Your task to perform on an android device: Add acer nitro to the cart on bestbuy.com, then select checkout. Image 0: 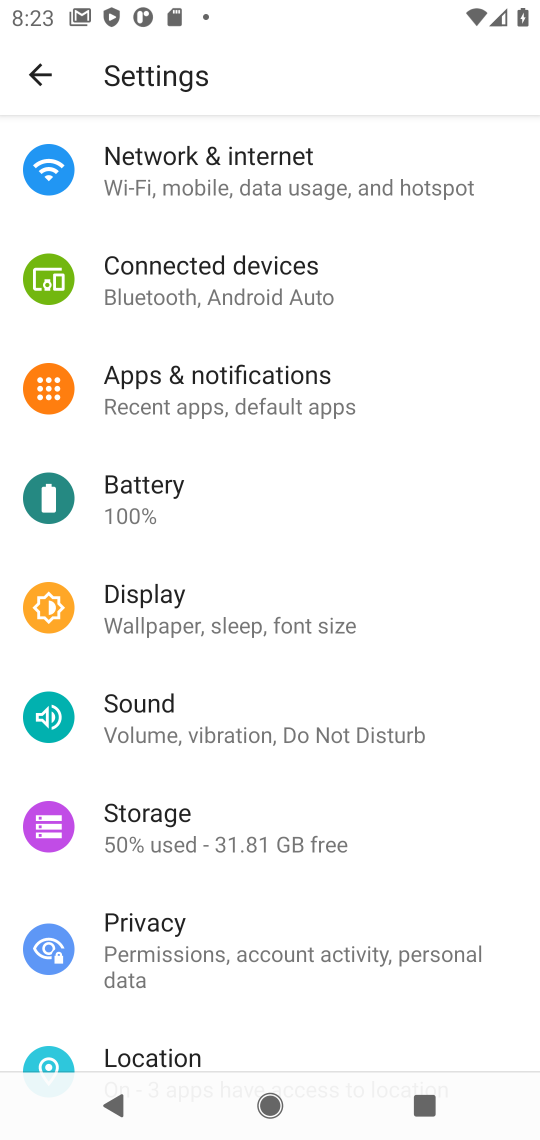
Step 0: press home button
Your task to perform on an android device: Add acer nitro to the cart on bestbuy.com, then select checkout. Image 1: 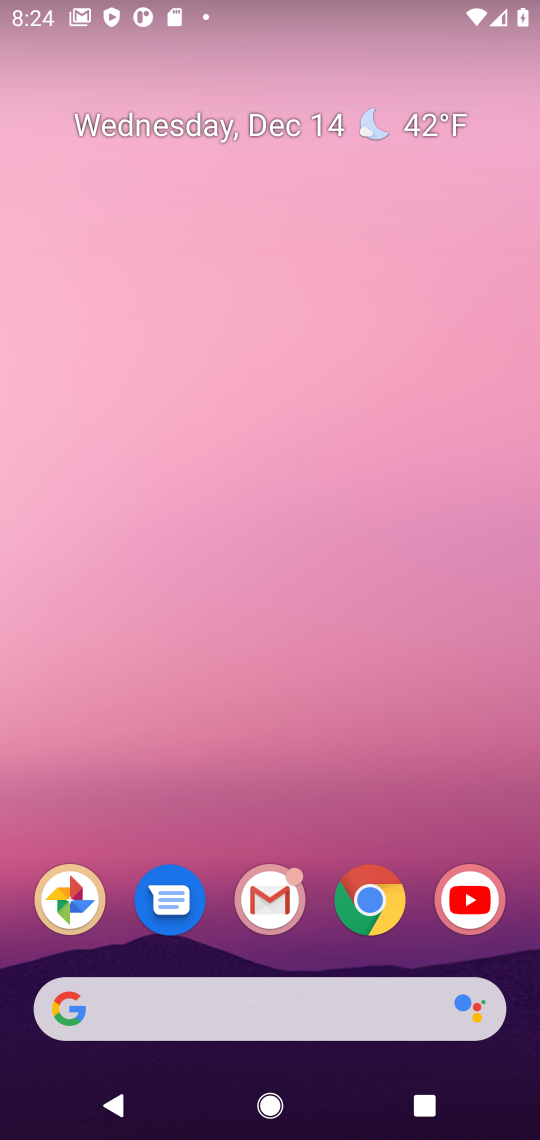
Step 1: click (364, 895)
Your task to perform on an android device: Add acer nitro to the cart on bestbuy.com, then select checkout. Image 2: 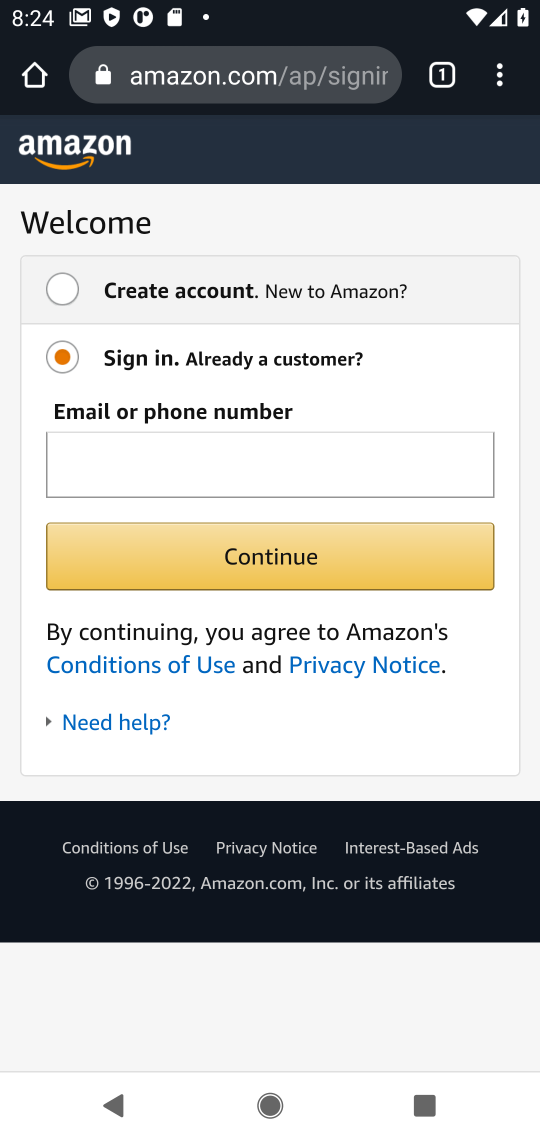
Step 2: click (242, 89)
Your task to perform on an android device: Add acer nitro to the cart on bestbuy.com, then select checkout. Image 3: 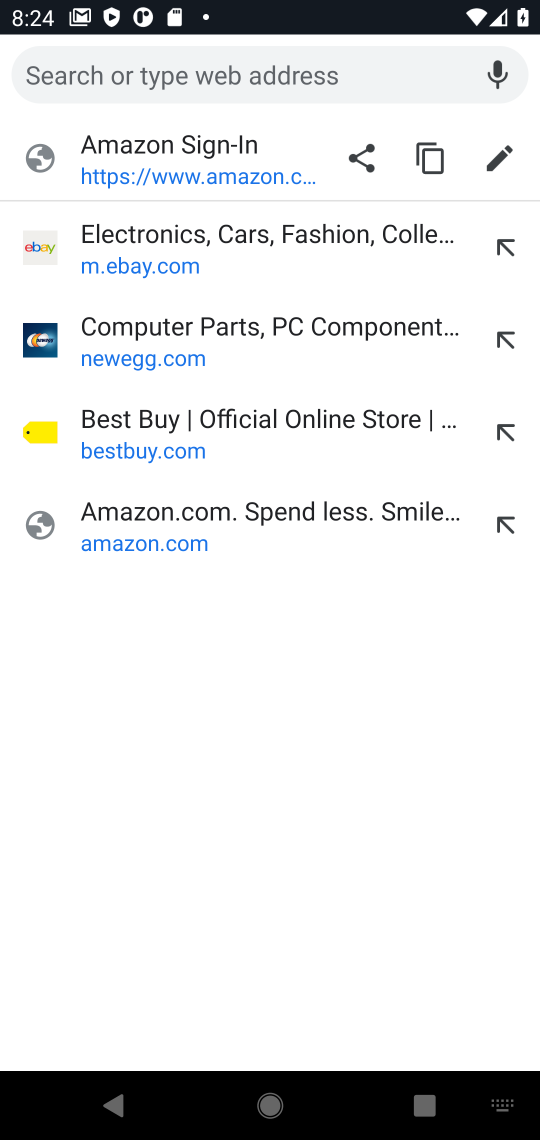
Step 3: click (125, 441)
Your task to perform on an android device: Add acer nitro to the cart on bestbuy.com, then select checkout. Image 4: 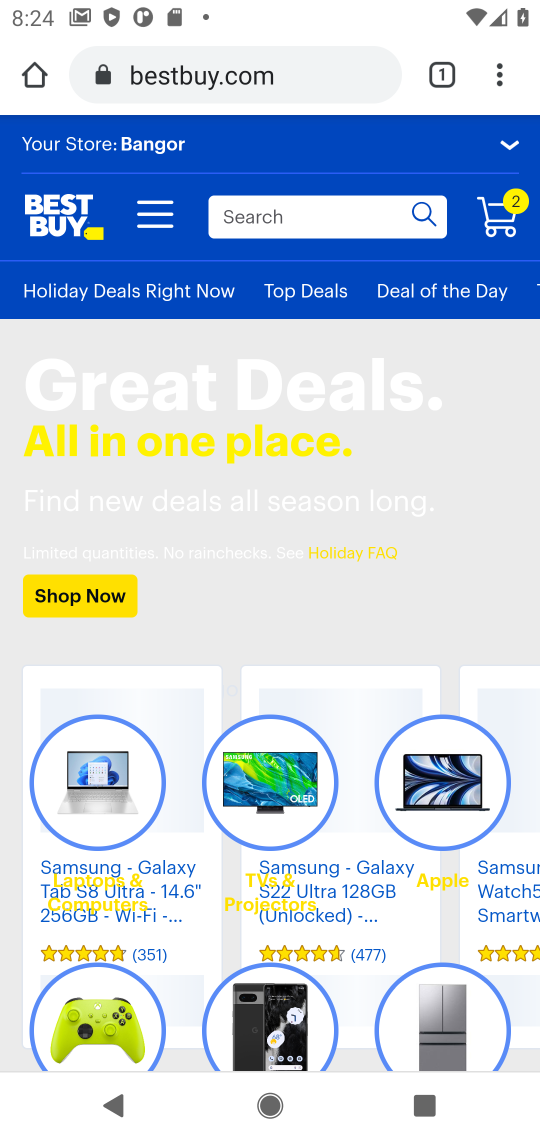
Step 4: click (247, 219)
Your task to perform on an android device: Add acer nitro to the cart on bestbuy.com, then select checkout. Image 5: 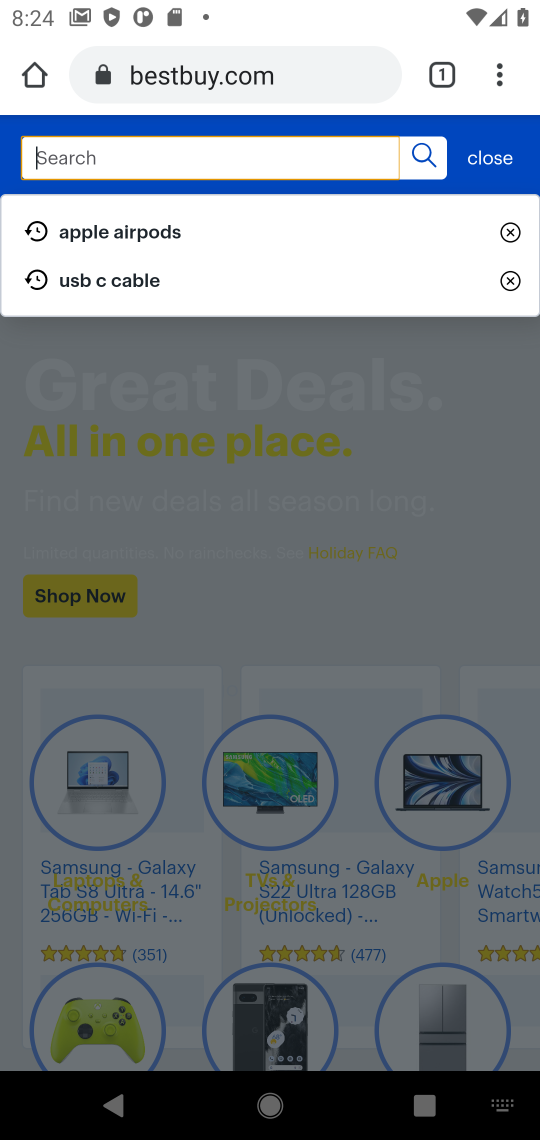
Step 5: type "acer nitro"
Your task to perform on an android device: Add acer nitro to the cart on bestbuy.com, then select checkout. Image 6: 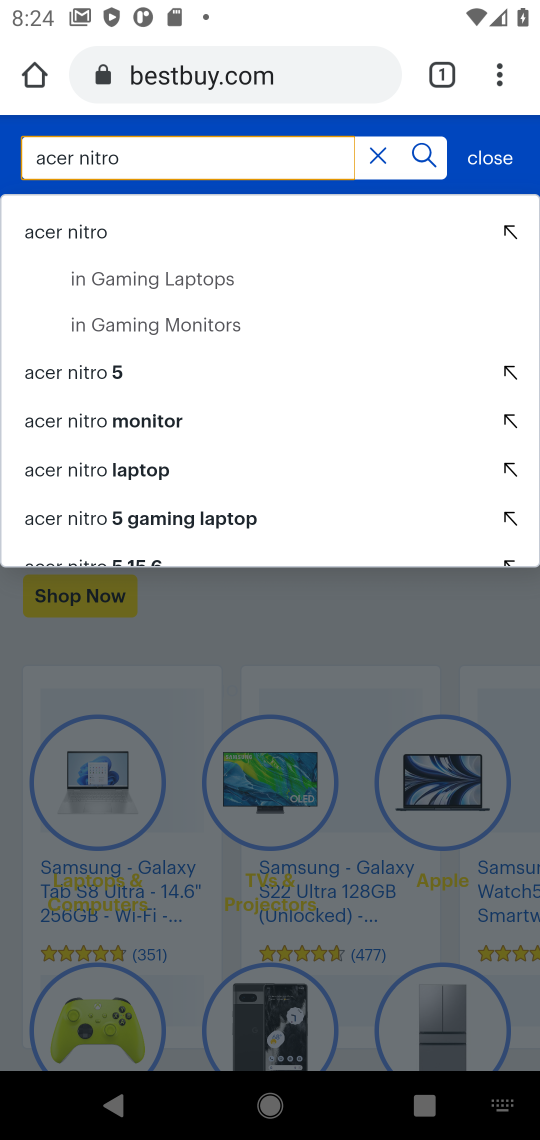
Step 6: click (68, 243)
Your task to perform on an android device: Add acer nitro to the cart on bestbuy.com, then select checkout. Image 7: 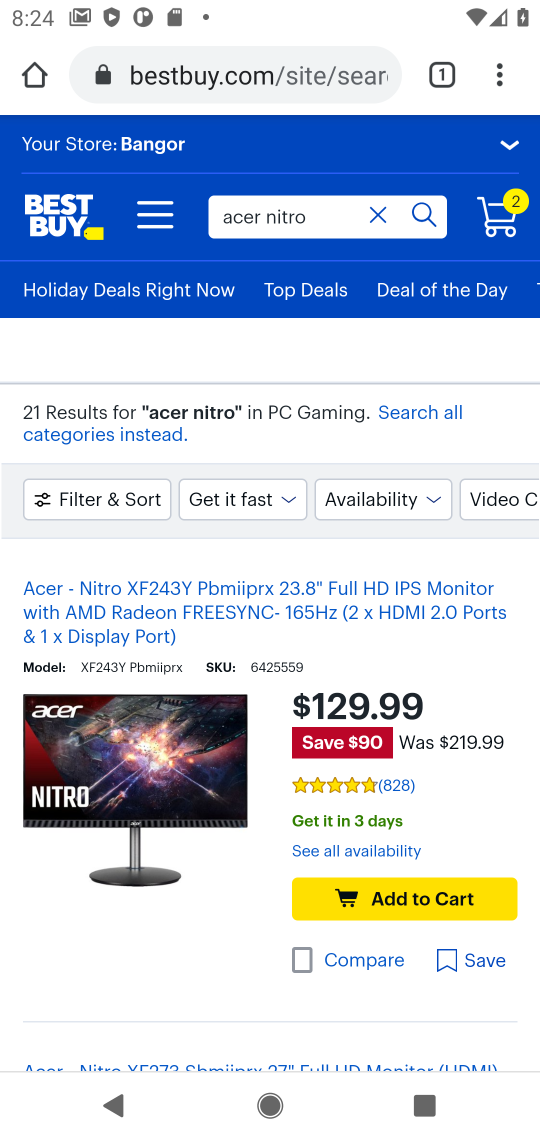
Step 7: click (367, 907)
Your task to perform on an android device: Add acer nitro to the cart on bestbuy.com, then select checkout. Image 8: 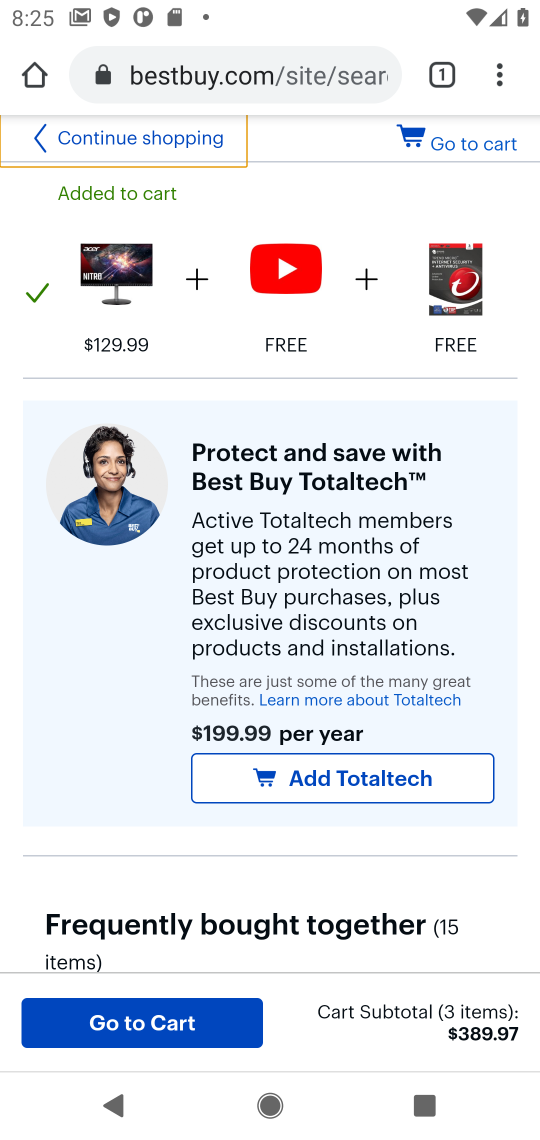
Step 8: click (464, 156)
Your task to perform on an android device: Add acer nitro to the cart on bestbuy.com, then select checkout. Image 9: 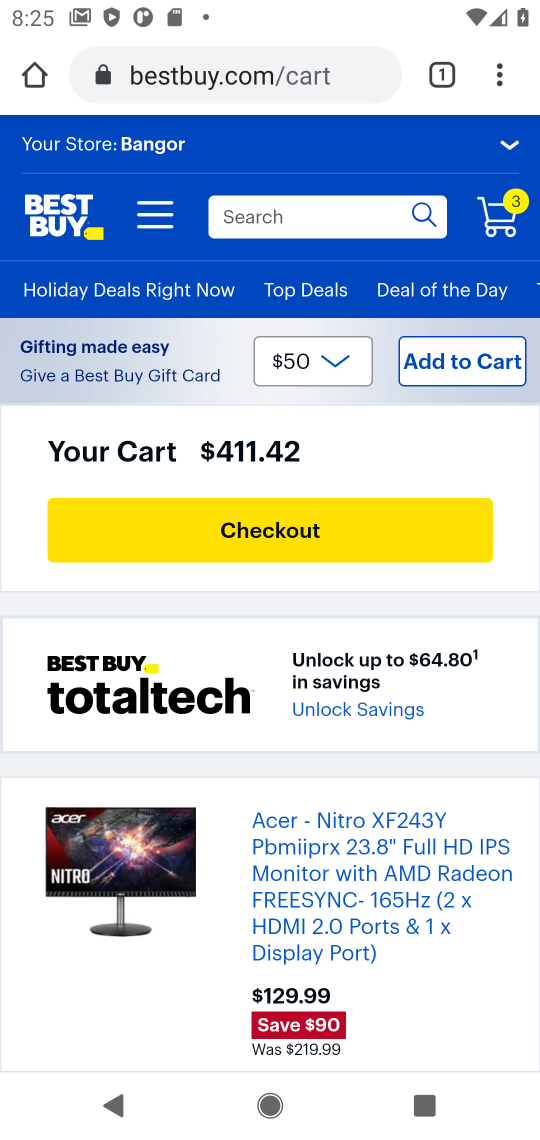
Step 9: click (245, 534)
Your task to perform on an android device: Add acer nitro to the cart on bestbuy.com, then select checkout. Image 10: 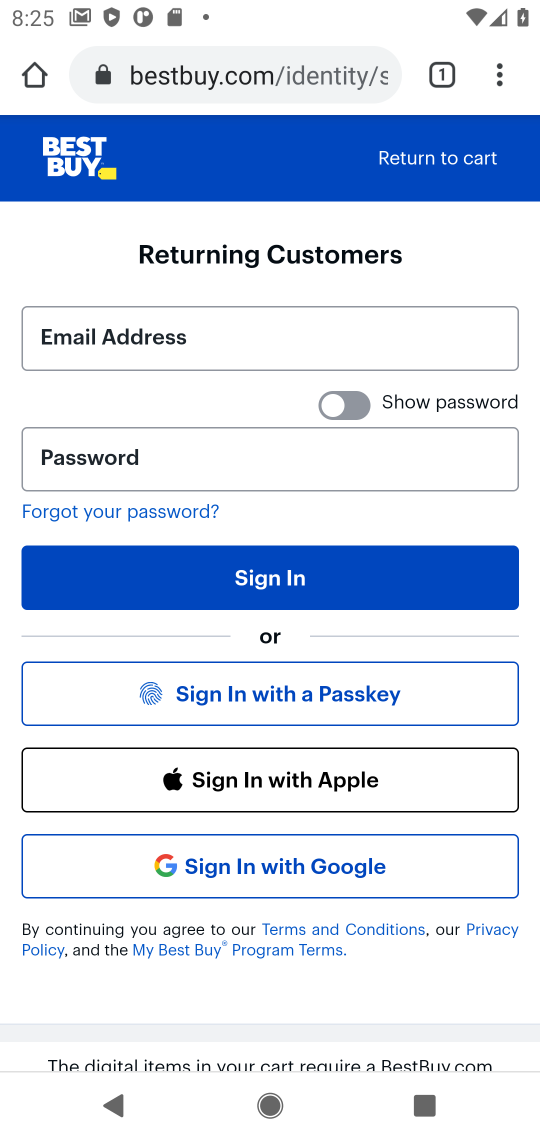
Step 10: task complete